Your task to perform on an android device: turn off translation in the chrome app Image 0: 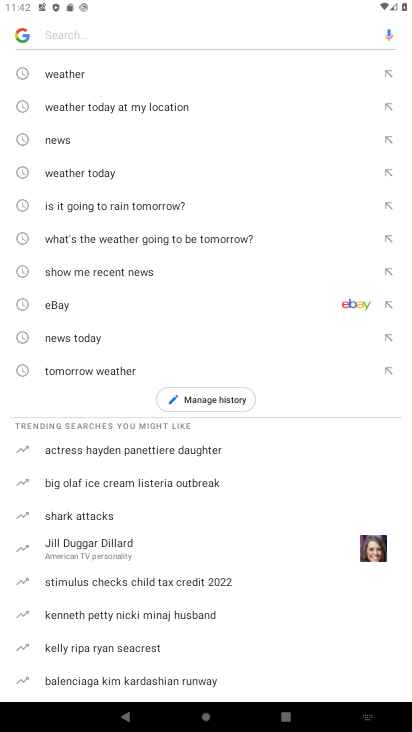
Step 0: press home button
Your task to perform on an android device: turn off translation in the chrome app Image 1: 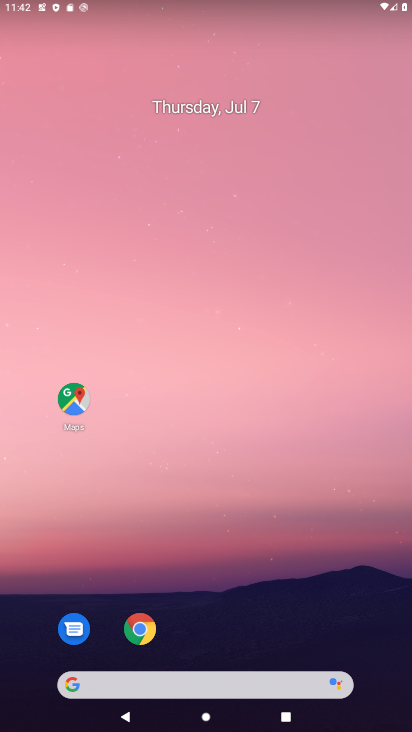
Step 1: click (140, 630)
Your task to perform on an android device: turn off translation in the chrome app Image 2: 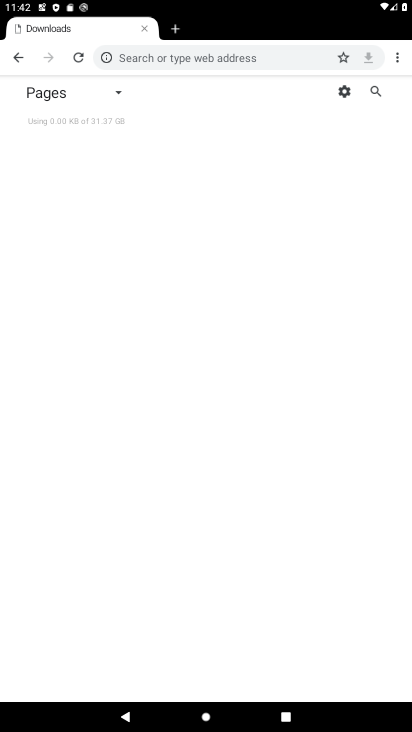
Step 2: click (396, 66)
Your task to perform on an android device: turn off translation in the chrome app Image 3: 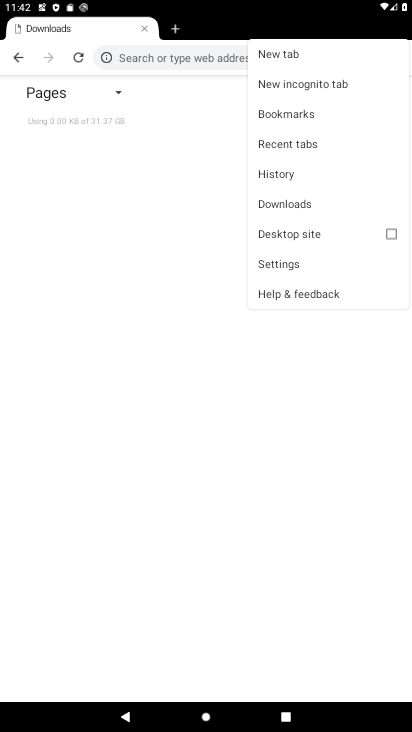
Step 3: click (286, 265)
Your task to perform on an android device: turn off translation in the chrome app Image 4: 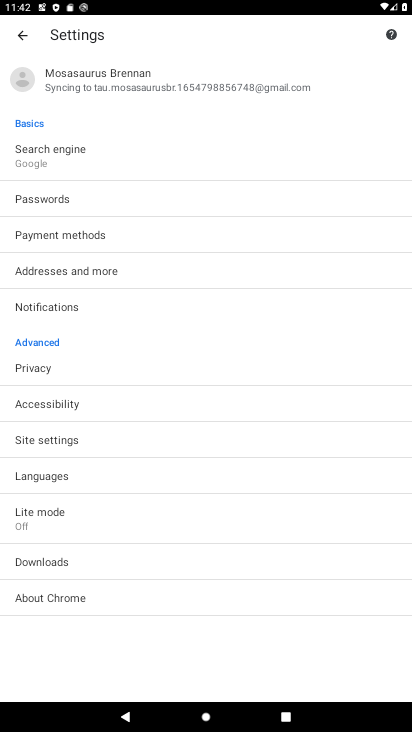
Step 4: click (56, 479)
Your task to perform on an android device: turn off translation in the chrome app Image 5: 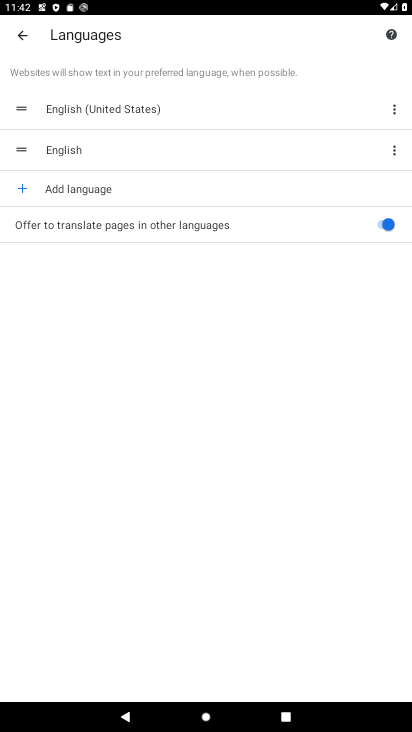
Step 5: click (376, 226)
Your task to perform on an android device: turn off translation in the chrome app Image 6: 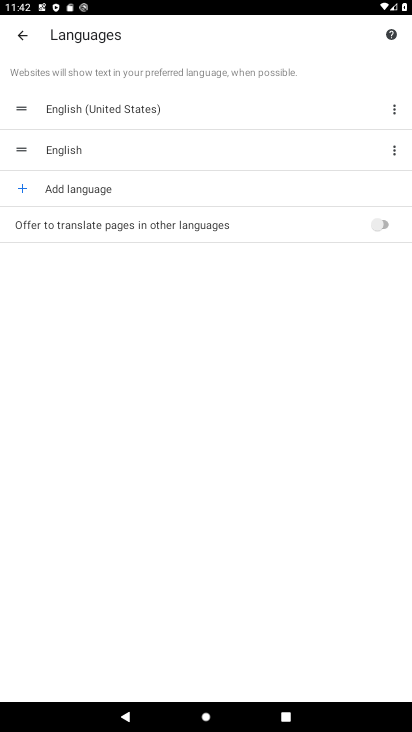
Step 6: task complete